Your task to perform on an android device: Open wifi settings Image 0: 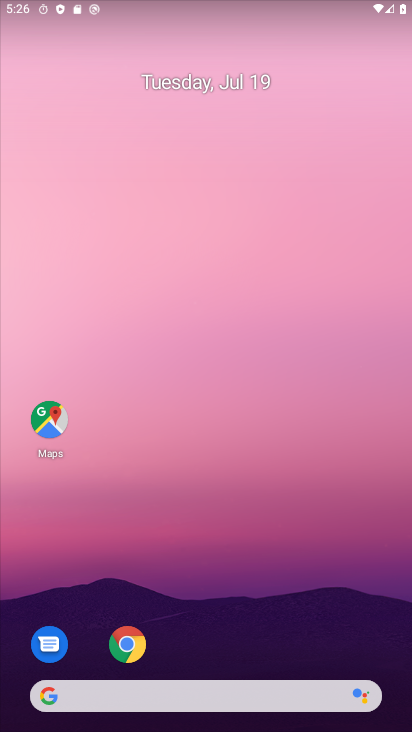
Step 0: drag from (254, 672) to (246, 214)
Your task to perform on an android device: Open wifi settings Image 1: 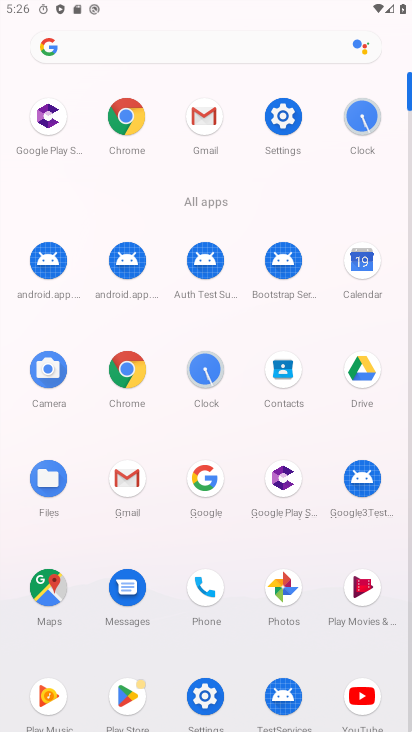
Step 1: click (289, 121)
Your task to perform on an android device: Open wifi settings Image 2: 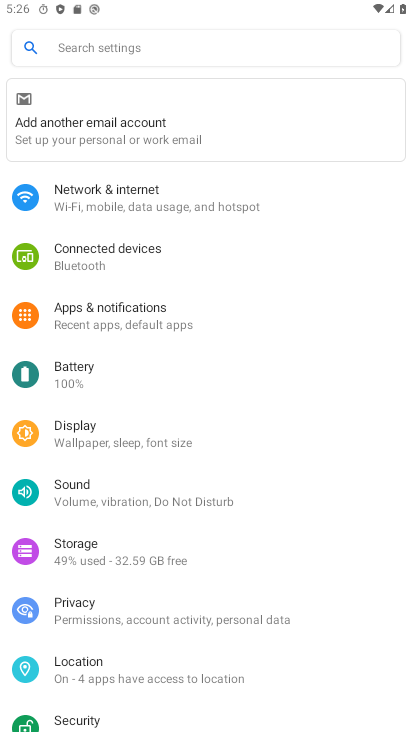
Step 2: click (114, 198)
Your task to perform on an android device: Open wifi settings Image 3: 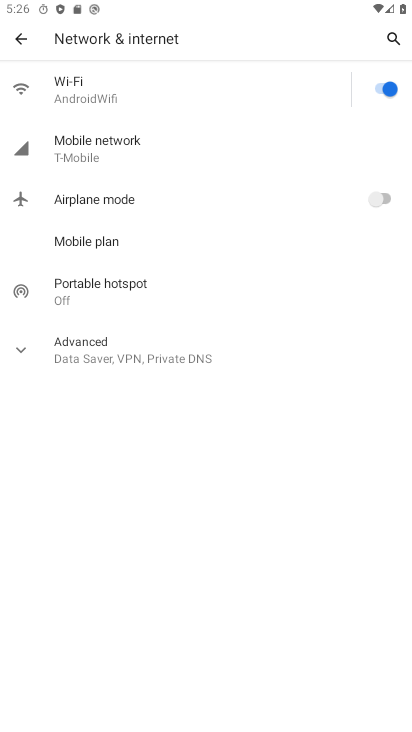
Step 3: task complete